Your task to perform on an android device: Search for pizza restaurants on Maps Image 0: 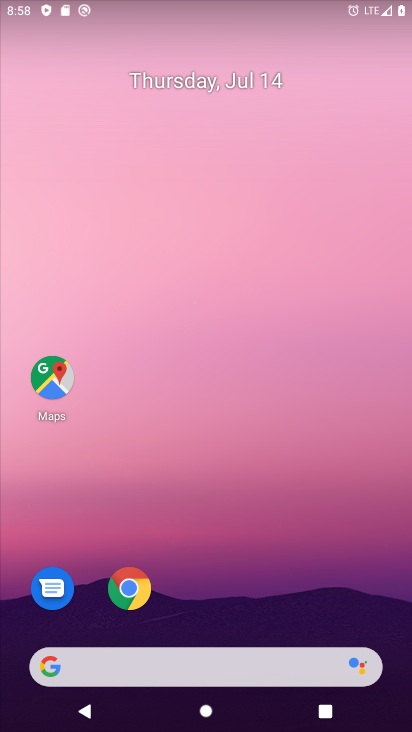
Step 0: drag from (310, 659) to (349, 8)
Your task to perform on an android device: Search for pizza restaurants on Maps Image 1: 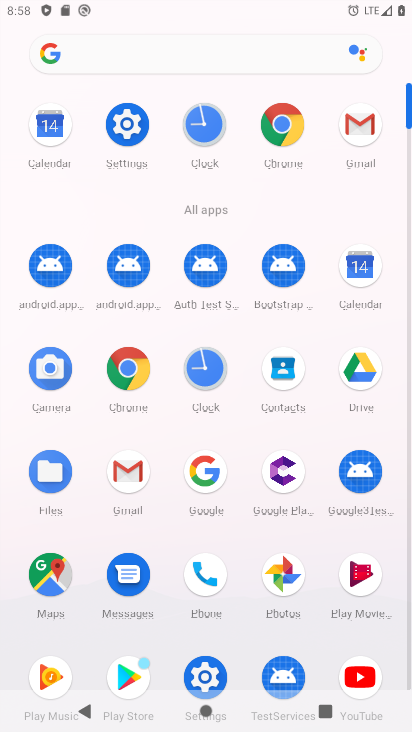
Step 1: click (40, 573)
Your task to perform on an android device: Search for pizza restaurants on Maps Image 2: 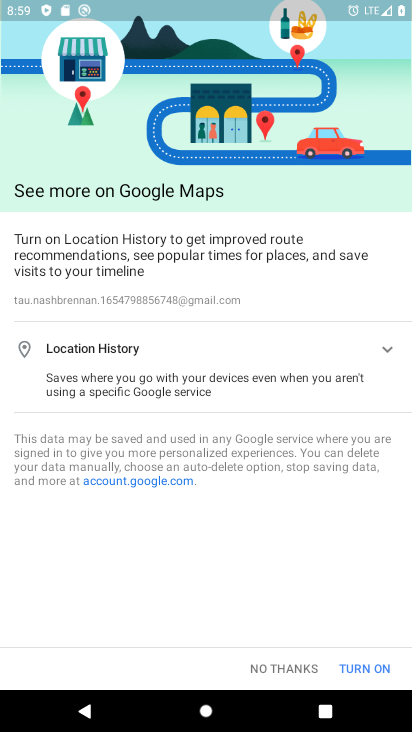
Step 2: click (261, 671)
Your task to perform on an android device: Search for pizza restaurants on Maps Image 3: 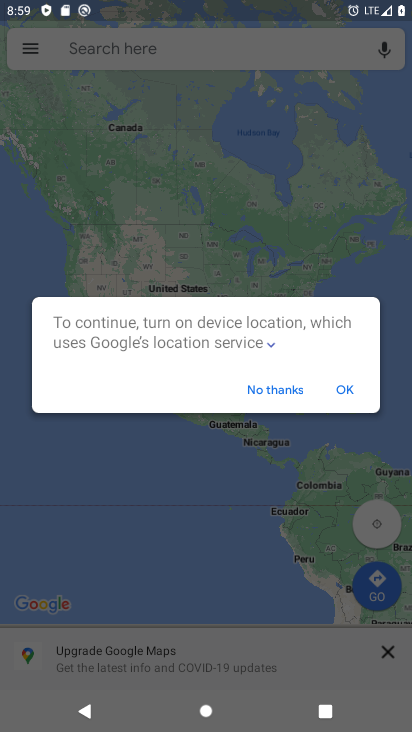
Step 3: click (266, 386)
Your task to perform on an android device: Search for pizza restaurants on Maps Image 4: 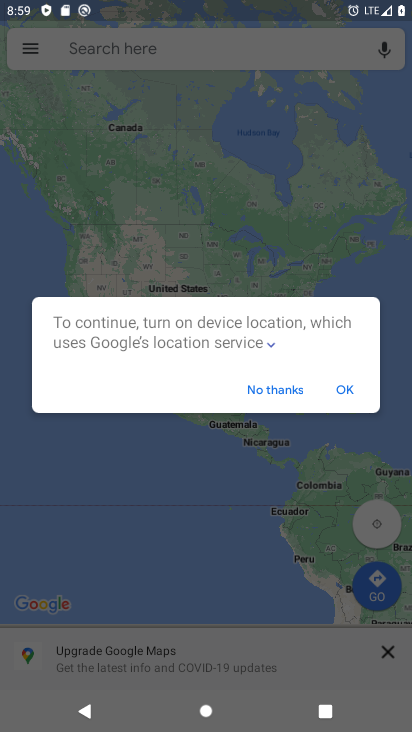
Step 4: click (173, 52)
Your task to perform on an android device: Search for pizza restaurants on Maps Image 5: 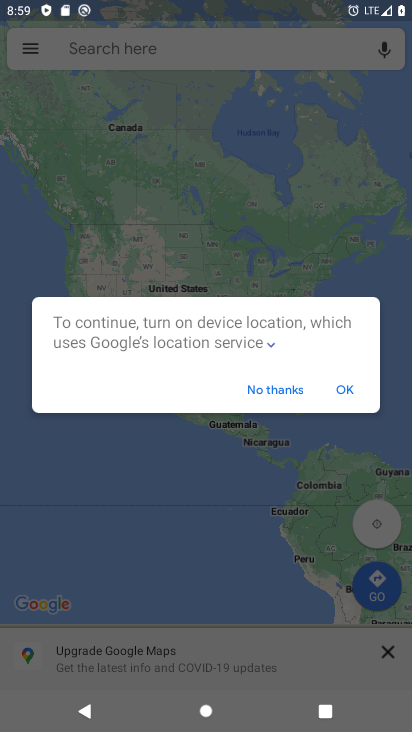
Step 5: click (295, 390)
Your task to perform on an android device: Search for pizza restaurants on Maps Image 6: 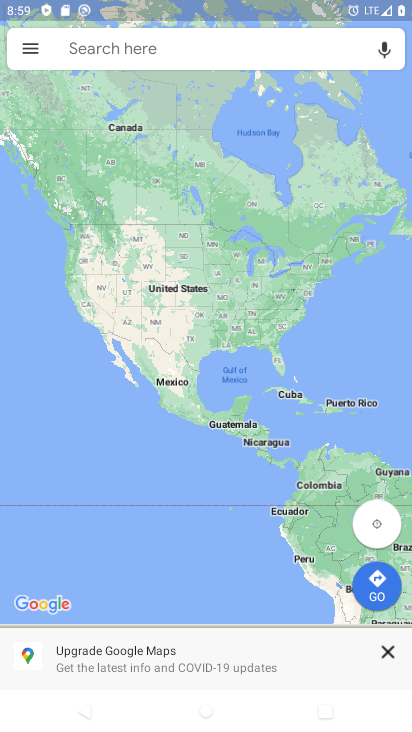
Step 6: click (199, 43)
Your task to perform on an android device: Search for pizza restaurants on Maps Image 7: 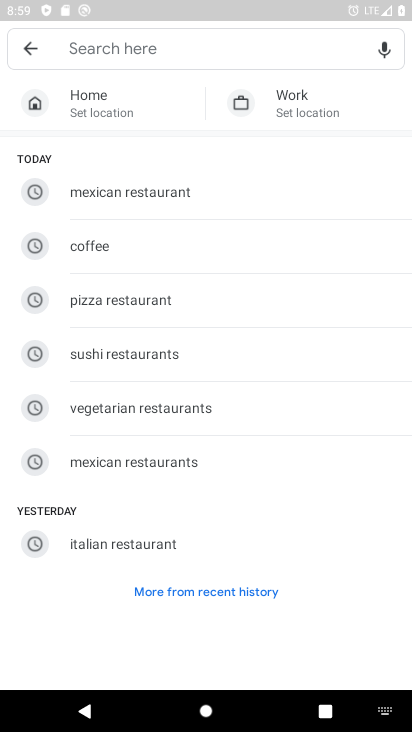
Step 7: click (157, 296)
Your task to perform on an android device: Search for pizza restaurants on Maps Image 8: 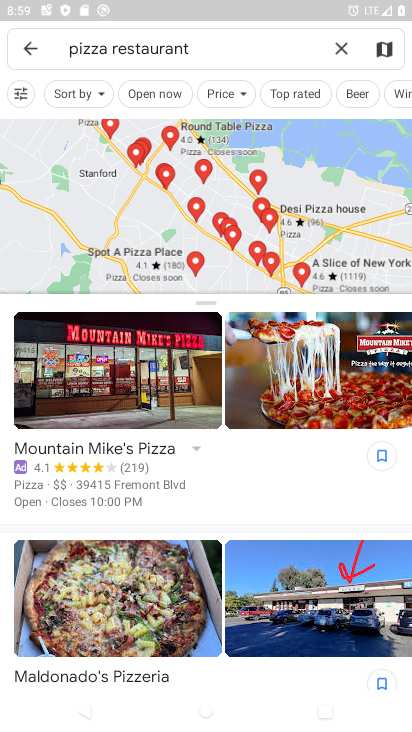
Step 8: task complete